Your task to perform on an android device: find photos in the google photos app Image 0: 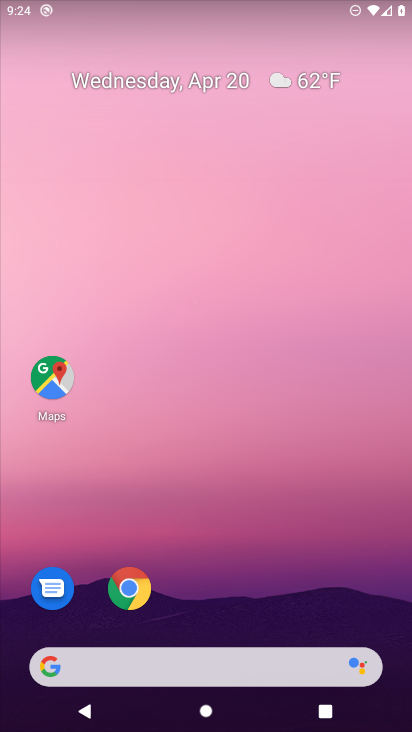
Step 0: drag from (203, 616) to (228, 266)
Your task to perform on an android device: find photos in the google photos app Image 1: 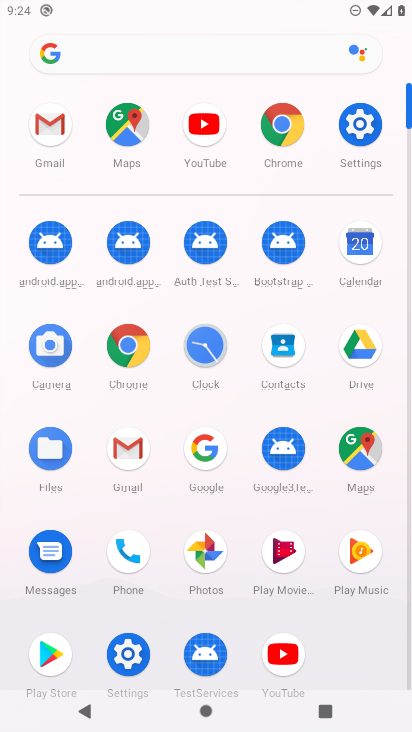
Step 1: click (200, 550)
Your task to perform on an android device: find photos in the google photos app Image 2: 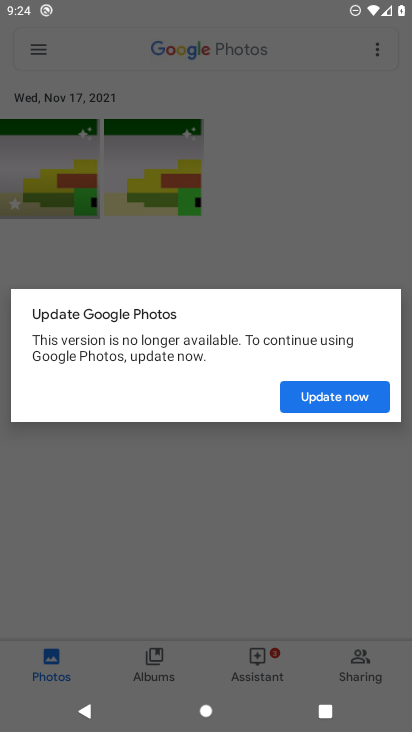
Step 2: click (333, 390)
Your task to perform on an android device: find photos in the google photos app Image 3: 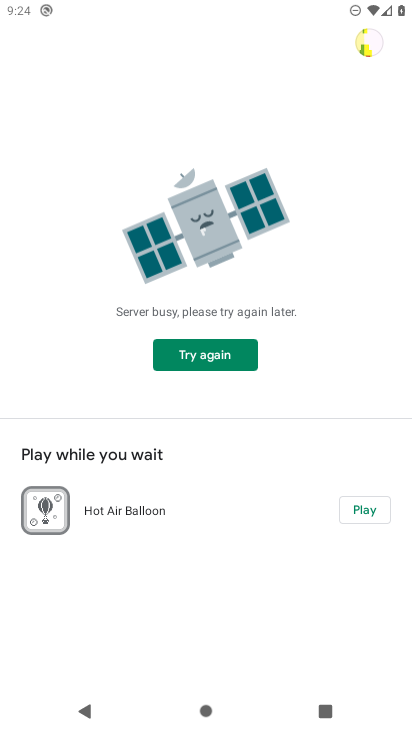
Step 3: press back button
Your task to perform on an android device: find photos in the google photos app Image 4: 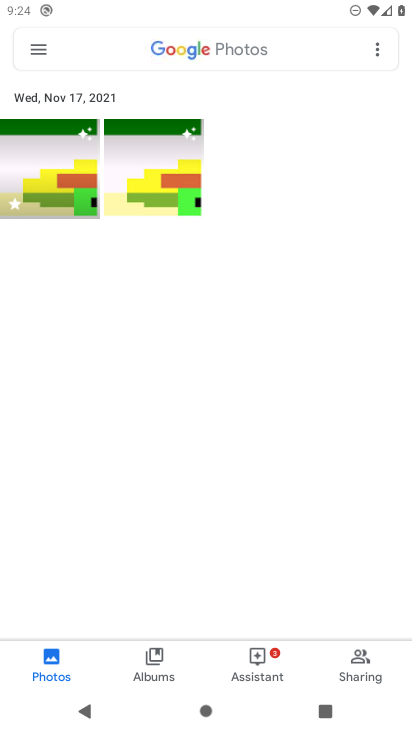
Step 4: click (60, 149)
Your task to perform on an android device: find photos in the google photos app Image 5: 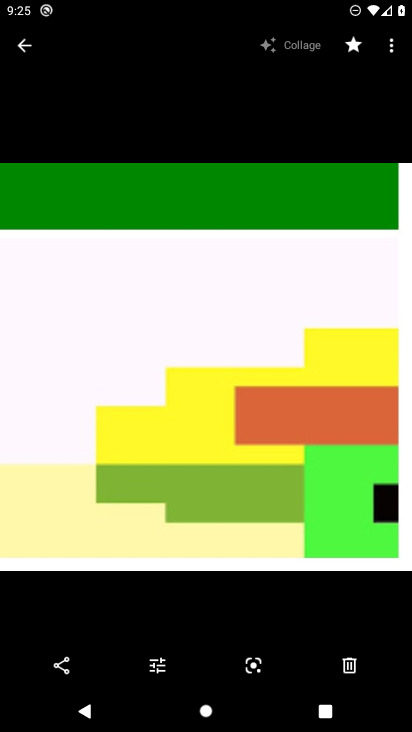
Step 5: task complete